Your task to perform on an android device: Go to Amazon Image 0: 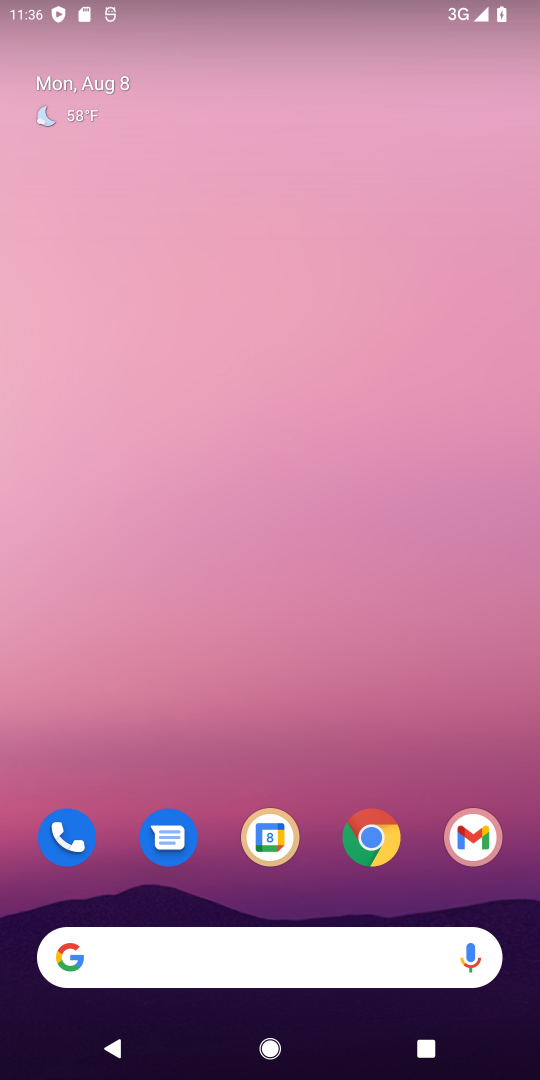
Step 0: click (366, 833)
Your task to perform on an android device: Go to Amazon Image 1: 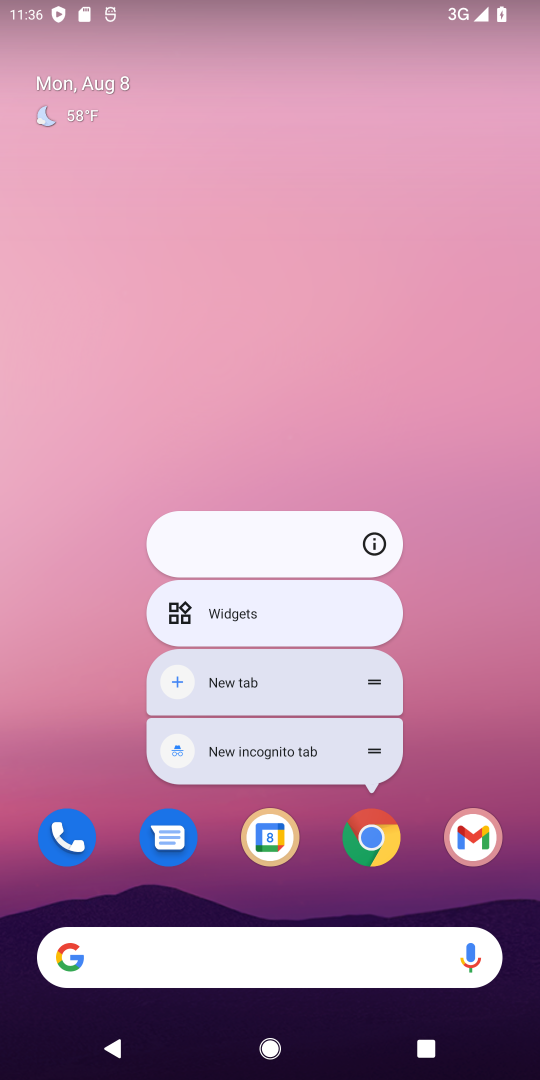
Step 1: click (366, 833)
Your task to perform on an android device: Go to Amazon Image 2: 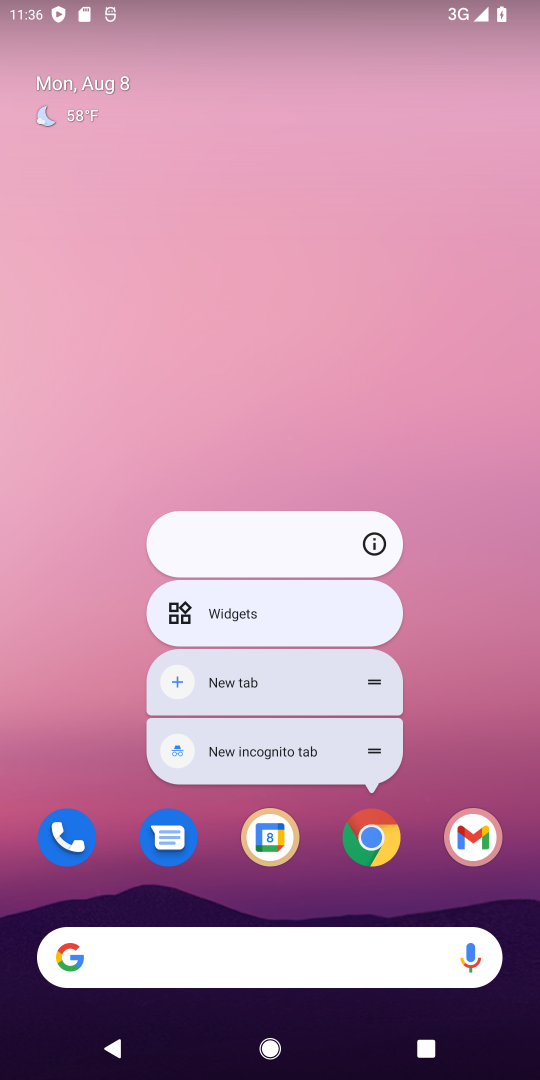
Step 2: click (366, 833)
Your task to perform on an android device: Go to Amazon Image 3: 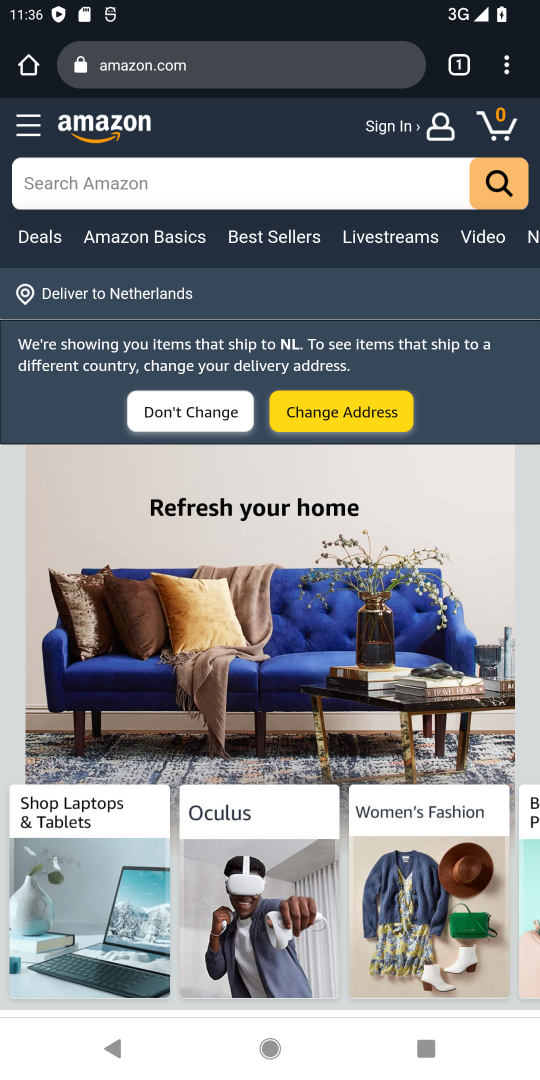
Step 3: task complete